Your task to perform on an android device: Check the news Image 0: 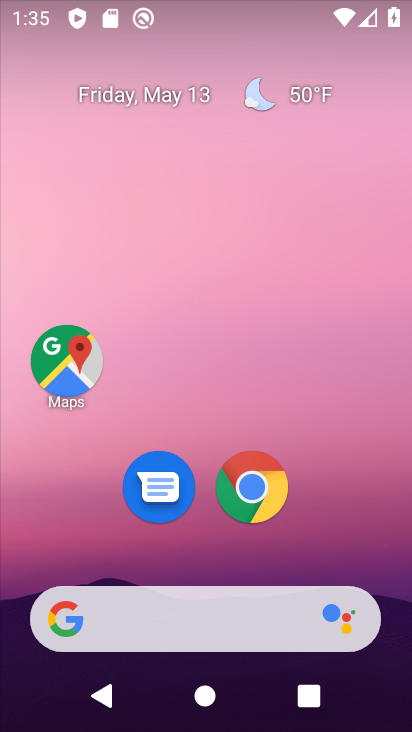
Step 0: drag from (0, 283) to (390, 253)
Your task to perform on an android device: Check the news Image 1: 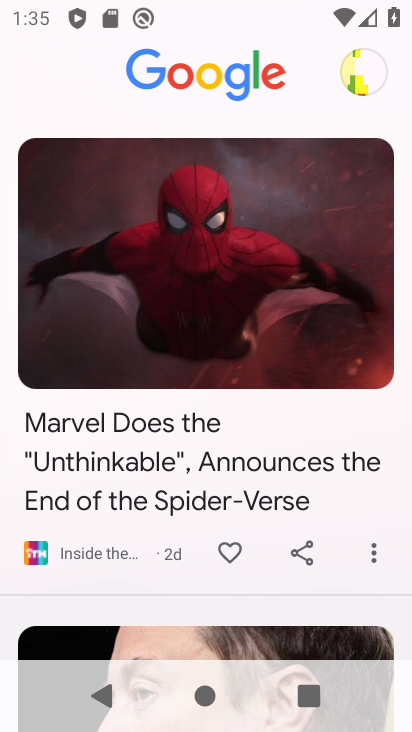
Step 1: task complete